Your task to perform on an android device: Go to calendar. Show me events next week Image 0: 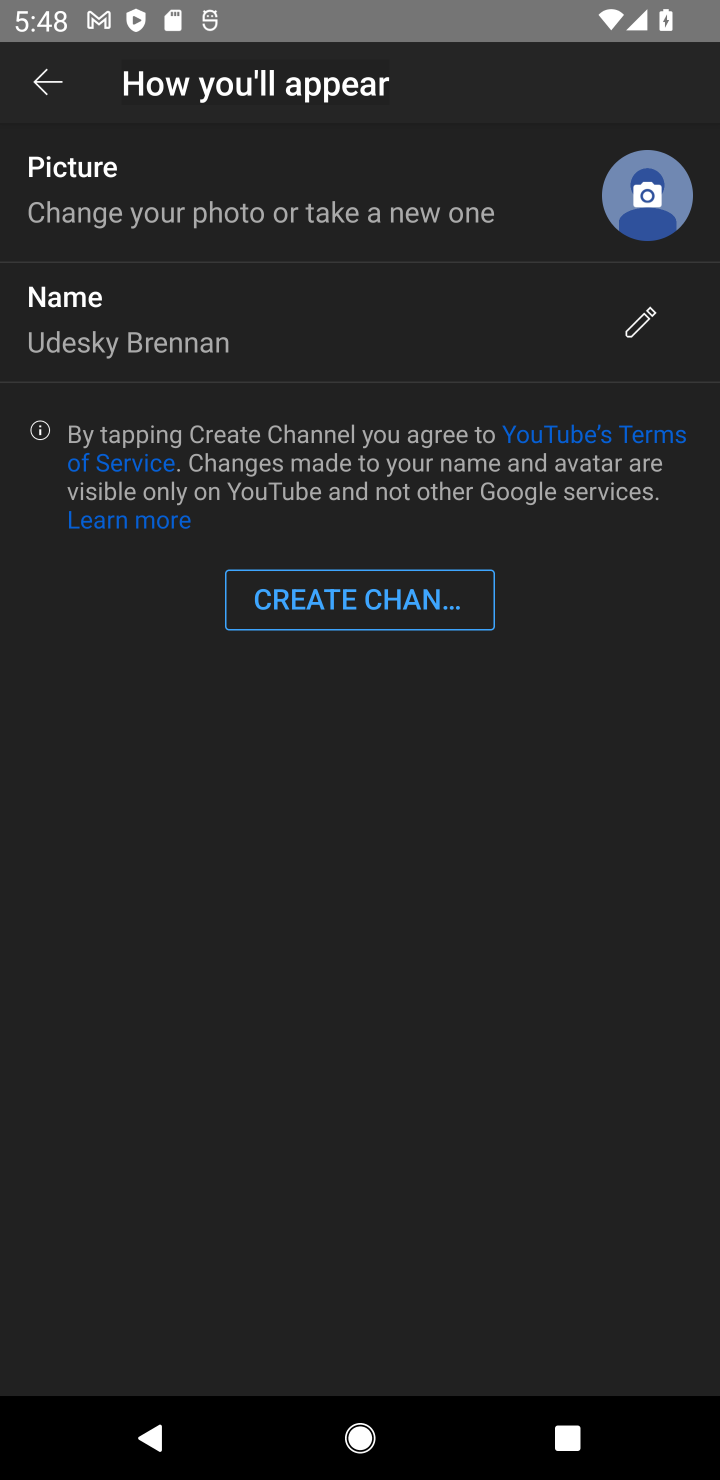
Step 0: task complete